Your task to perform on an android device: Check the news Image 0: 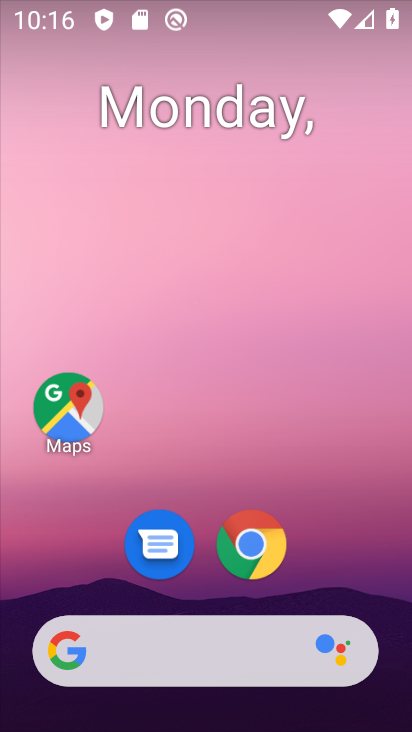
Step 0: drag from (4, 307) to (365, 288)
Your task to perform on an android device: Check the news Image 1: 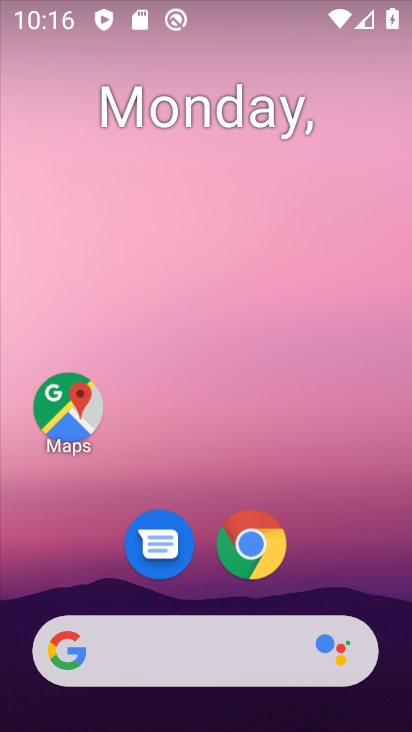
Step 1: task complete